Your task to perform on an android device: turn on wifi Image 0: 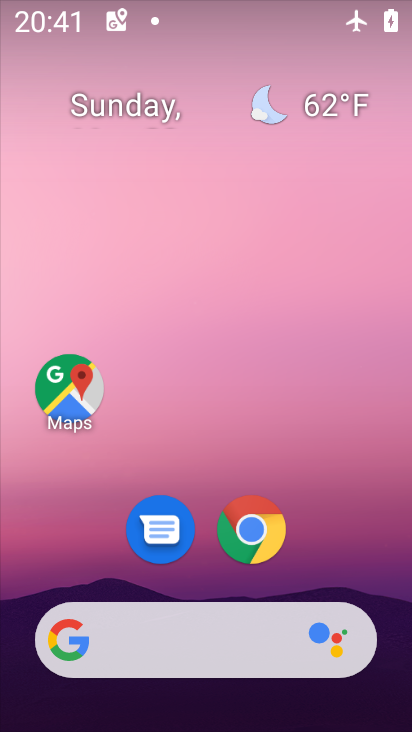
Step 0: drag from (245, 617) to (163, 91)
Your task to perform on an android device: turn on wifi Image 1: 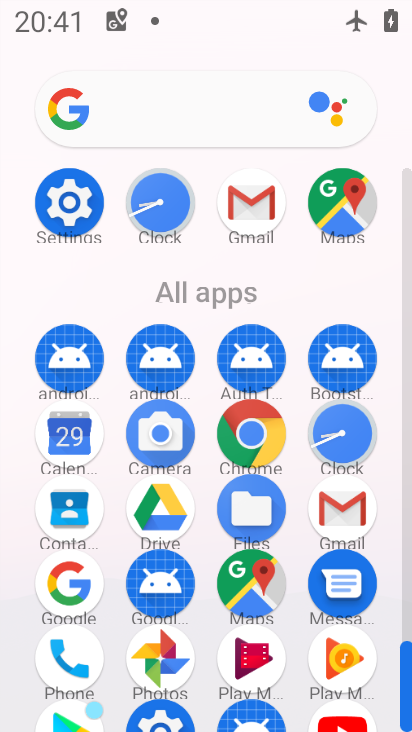
Step 1: click (71, 207)
Your task to perform on an android device: turn on wifi Image 2: 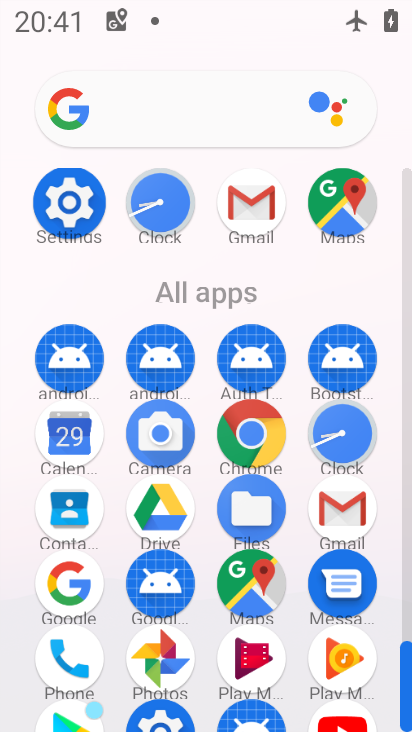
Step 2: click (72, 206)
Your task to perform on an android device: turn on wifi Image 3: 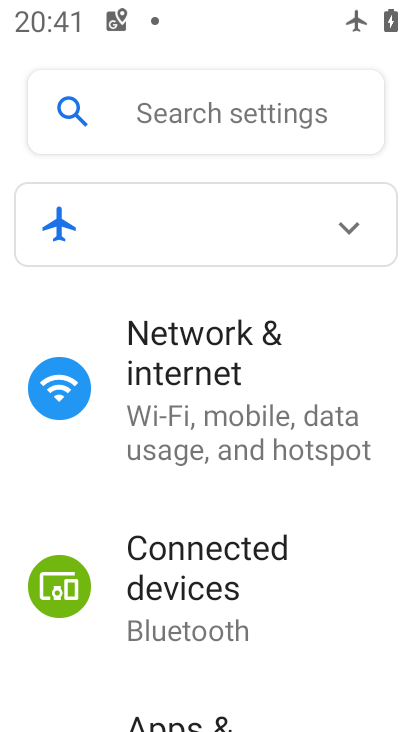
Step 3: click (201, 399)
Your task to perform on an android device: turn on wifi Image 4: 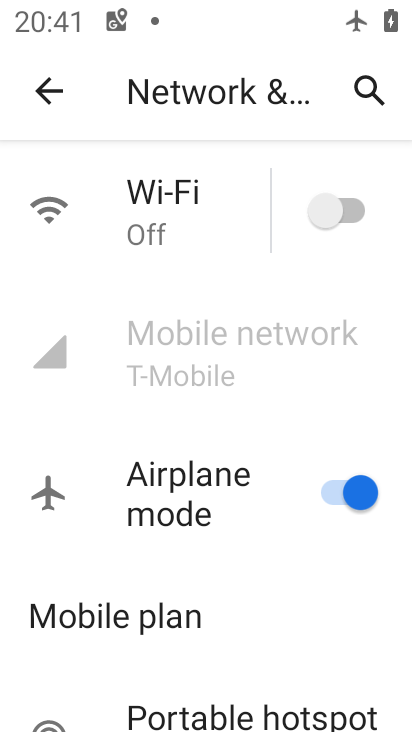
Step 4: click (336, 206)
Your task to perform on an android device: turn on wifi Image 5: 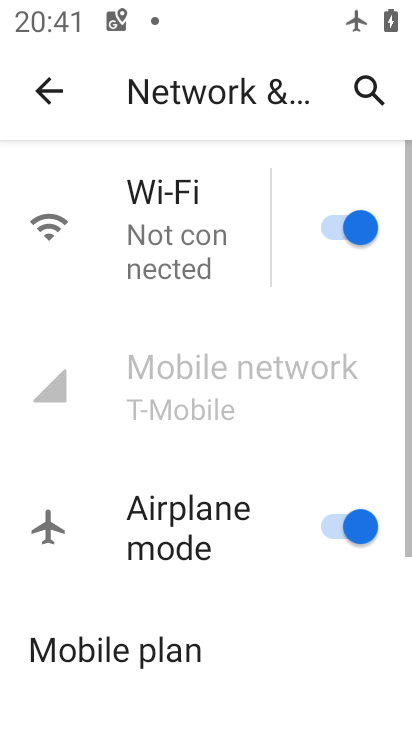
Step 5: task complete